Your task to perform on an android device: visit the assistant section in the google photos Image 0: 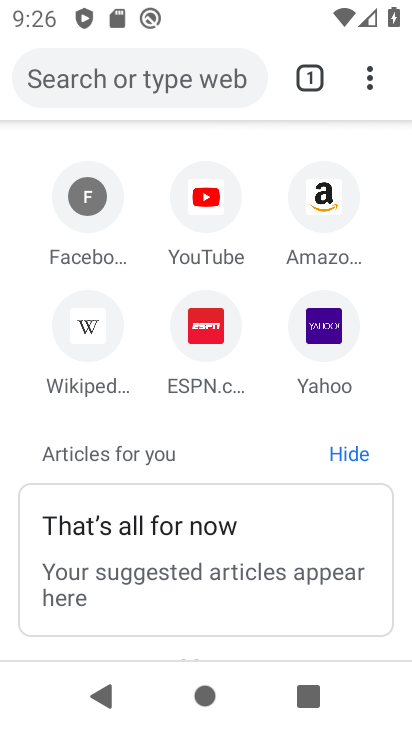
Step 0: press back button
Your task to perform on an android device: visit the assistant section in the google photos Image 1: 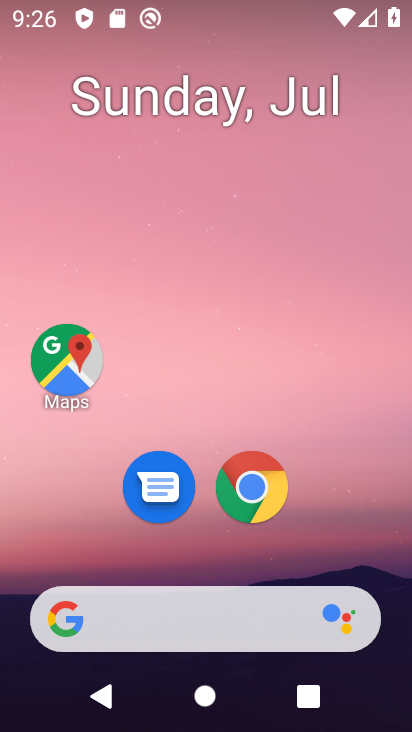
Step 1: drag from (194, 597) to (248, 36)
Your task to perform on an android device: visit the assistant section in the google photos Image 2: 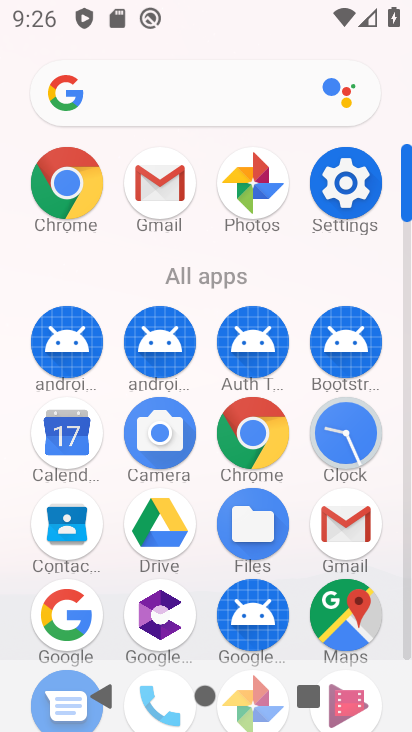
Step 2: drag from (197, 655) to (228, 133)
Your task to perform on an android device: visit the assistant section in the google photos Image 3: 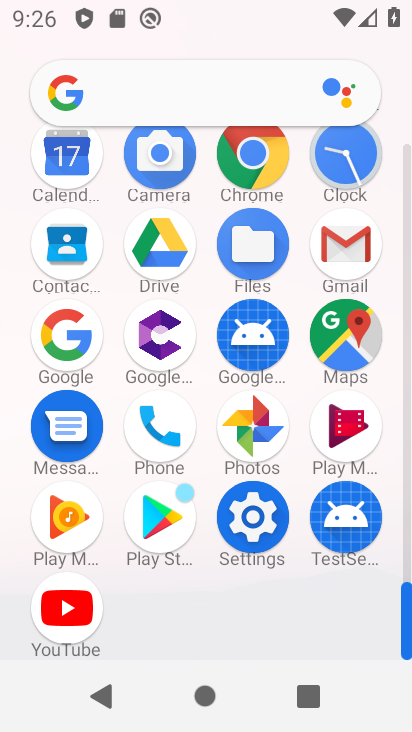
Step 3: click (241, 408)
Your task to perform on an android device: visit the assistant section in the google photos Image 4: 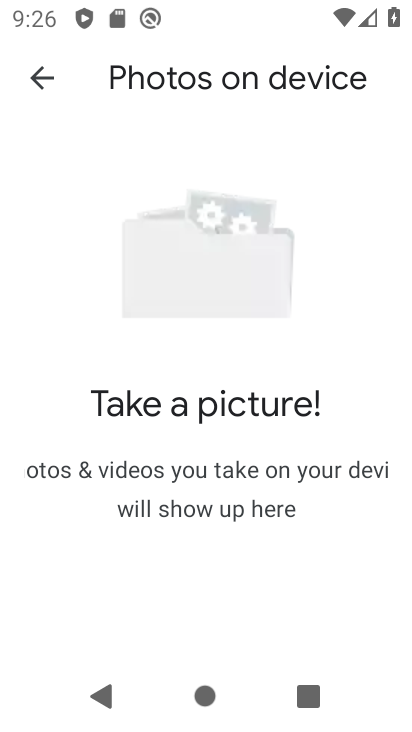
Step 4: click (30, 76)
Your task to perform on an android device: visit the assistant section in the google photos Image 5: 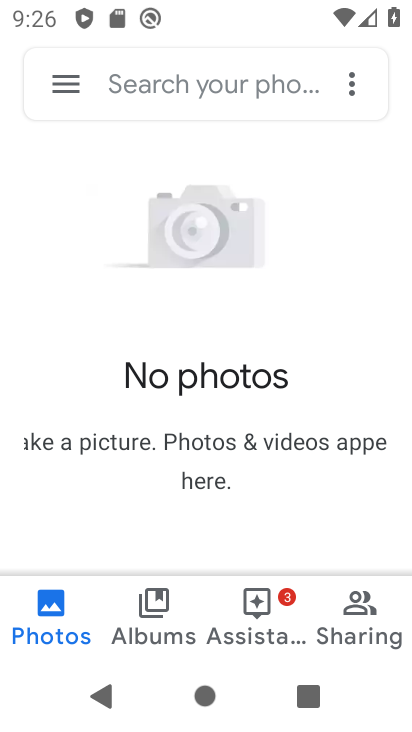
Step 5: click (249, 619)
Your task to perform on an android device: visit the assistant section in the google photos Image 6: 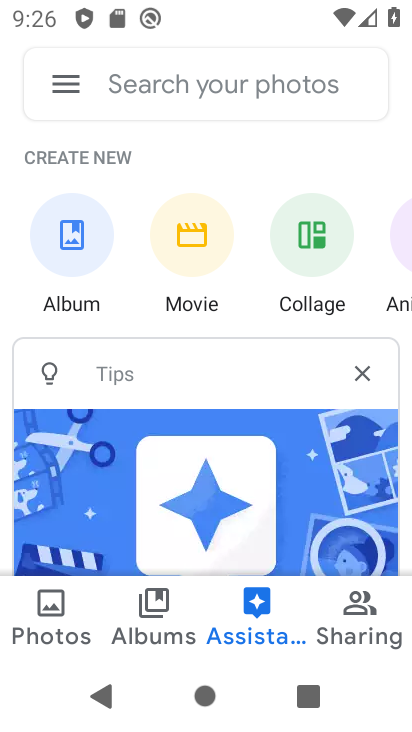
Step 6: task complete